Your task to perform on an android device: Open battery settings Image 0: 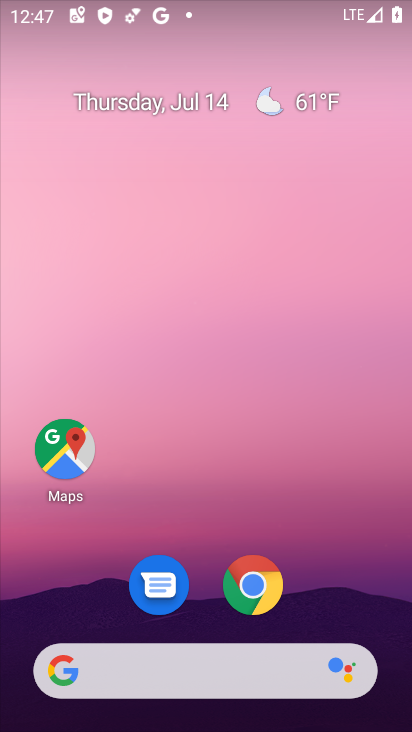
Step 0: drag from (245, 470) to (258, 0)
Your task to perform on an android device: Open battery settings Image 1: 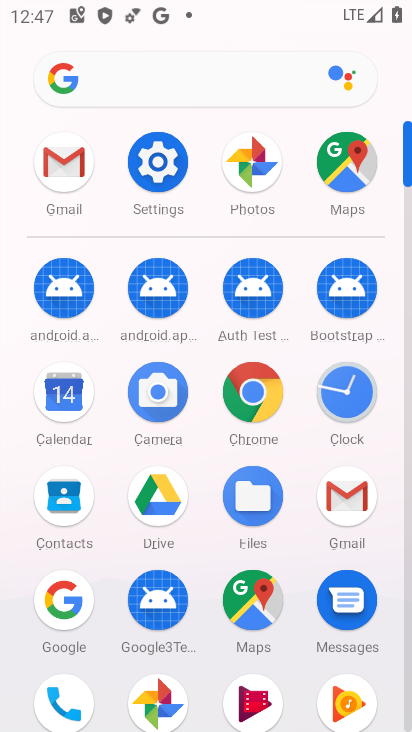
Step 1: click (163, 157)
Your task to perform on an android device: Open battery settings Image 2: 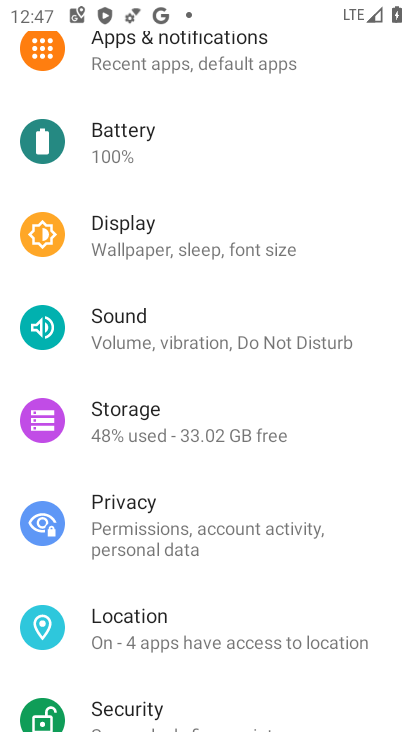
Step 2: click (154, 152)
Your task to perform on an android device: Open battery settings Image 3: 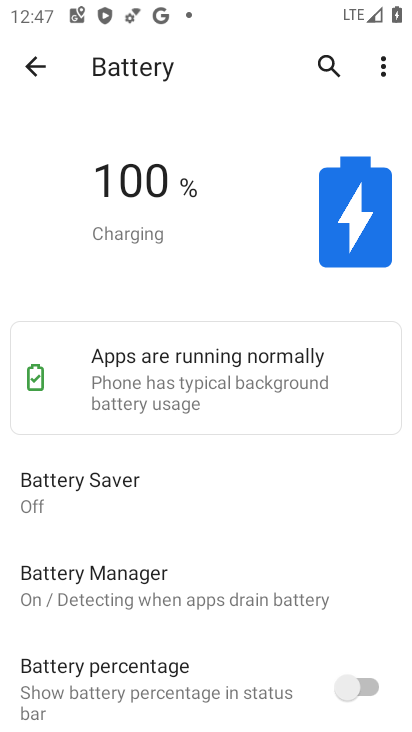
Step 3: task complete